Your task to perform on an android device: Open Yahoo.com Image 0: 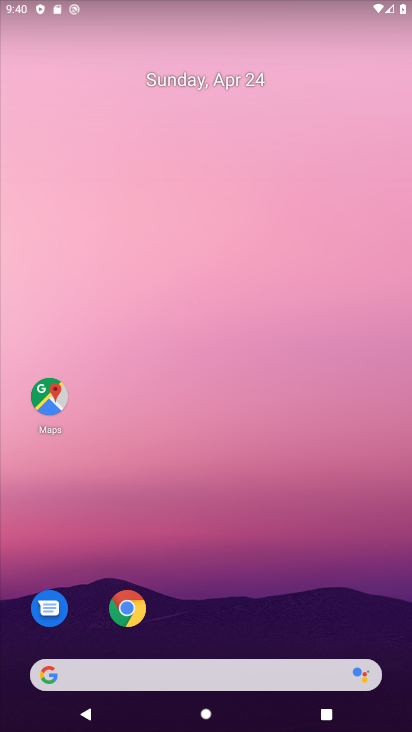
Step 0: drag from (283, 689) to (247, 173)
Your task to perform on an android device: Open Yahoo.com Image 1: 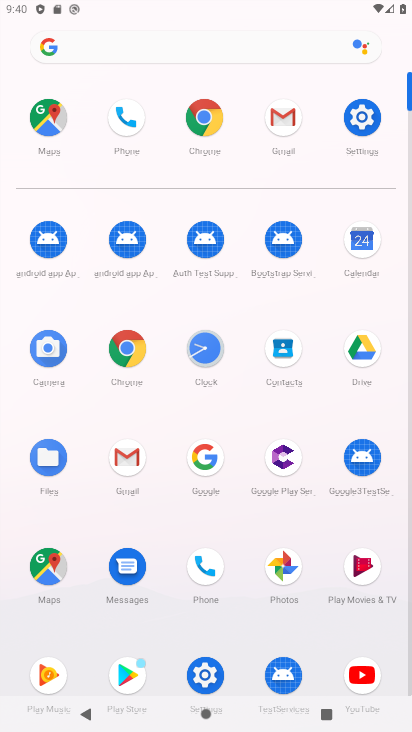
Step 1: click (200, 129)
Your task to perform on an android device: Open Yahoo.com Image 2: 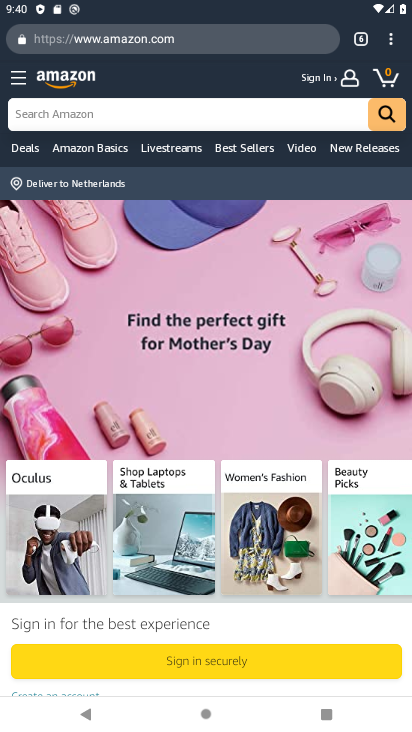
Step 2: click (219, 47)
Your task to perform on an android device: Open Yahoo.com Image 3: 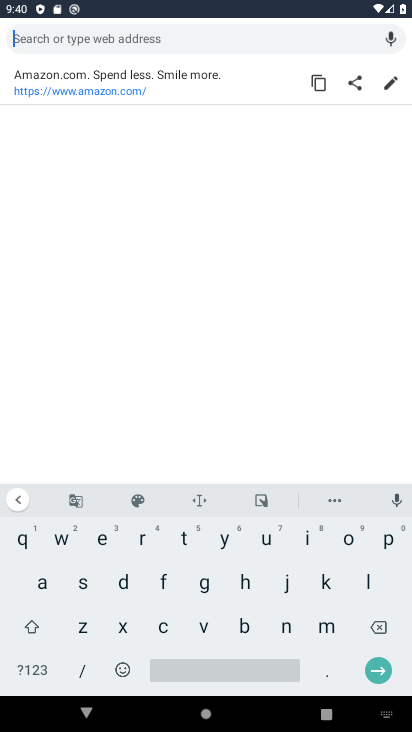
Step 3: click (224, 544)
Your task to perform on an android device: Open Yahoo.com Image 4: 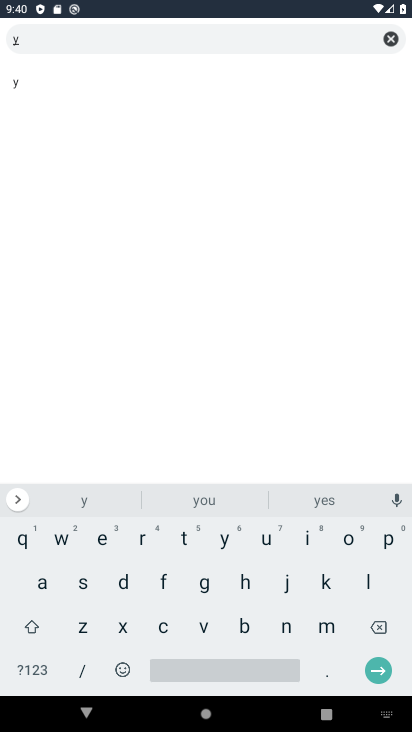
Step 4: click (40, 584)
Your task to perform on an android device: Open Yahoo.com Image 5: 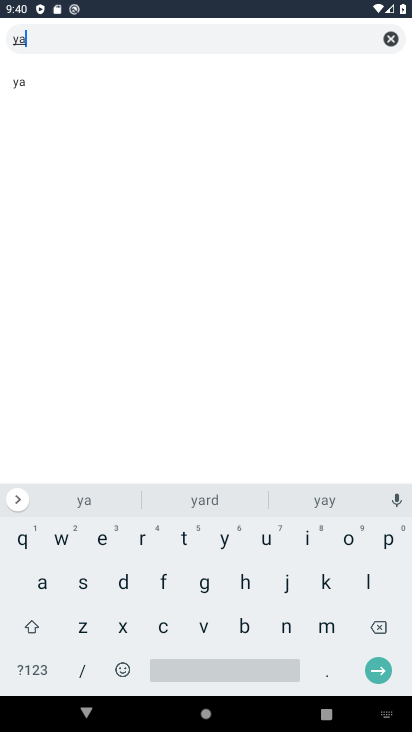
Step 5: click (244, 582)
Your task to perform on an android device: Open Yahoo.com Image 6: 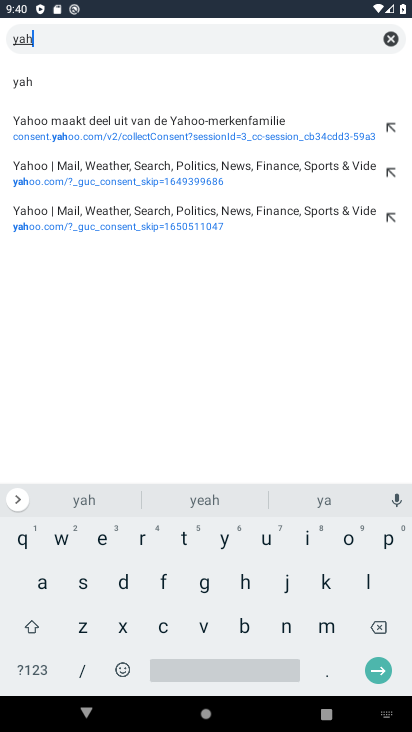
Step 6: click (131, 202)
Your task to perform on an android device: Open Yahoo.com Image 7: 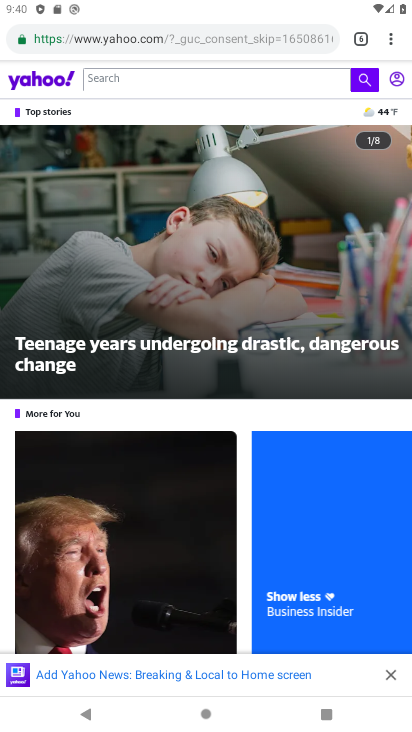
Step 7: task complete